Your task to perform on an android device: turn off javascript in the chrome app Image 0: 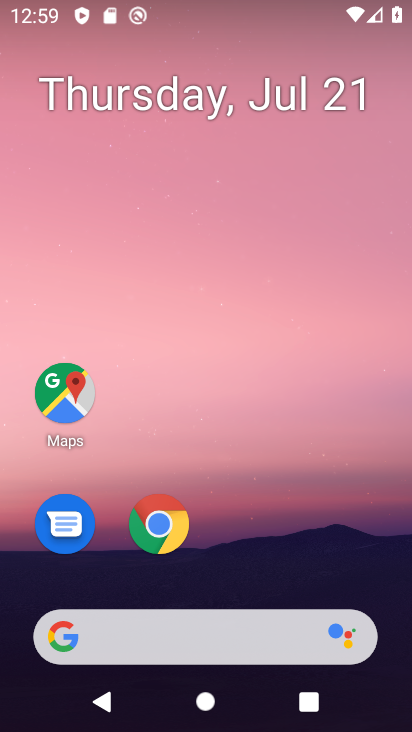
Step 0: drag from (260, 522) to (282, 248)
Your task to perform on an android device: turn off javascript in the chrome app Image 1: 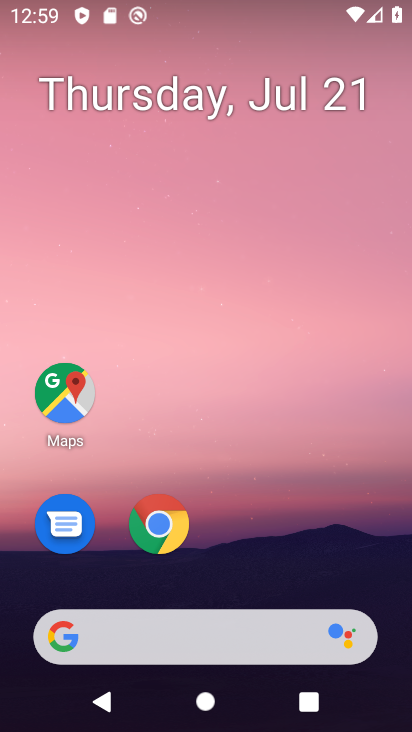
Step 1: click (172, 519)
Your task to perform on an android device: turn off javascript in the chrome app Image 2: 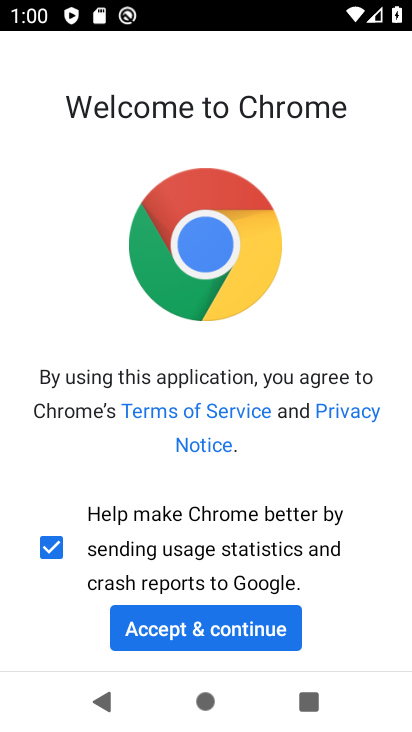
Step 2: click (292, 639)
Your task to perform on an android device: turn off javascript in the chrome app Image 3: 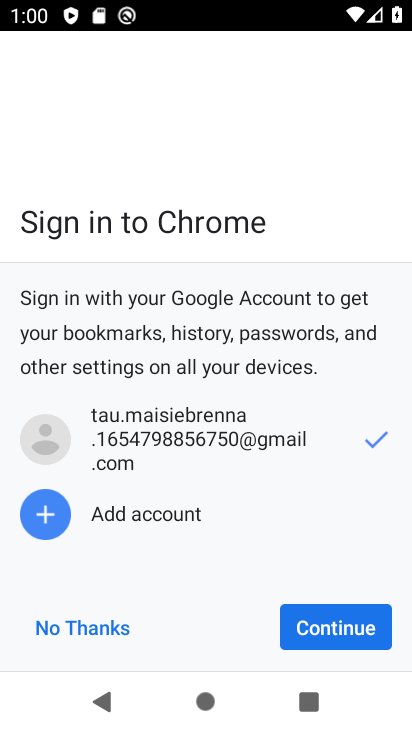
Step 3: click (304, 626)
Your task to perform on an android device: turn off javascript in the chrome app Image 4: 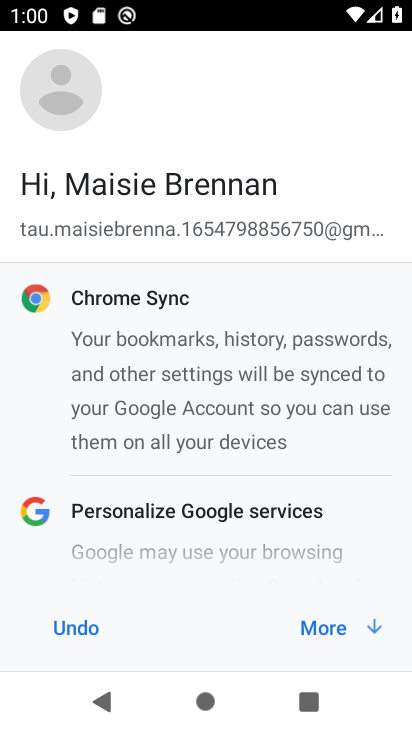
Step 4: click (308, 627)
Your task to perform on an android device: turn off javascript in the chrome app Image 5: 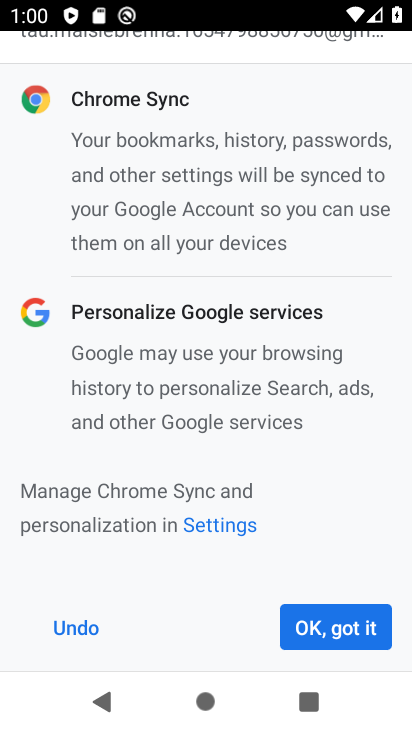
Step 5: click (311, 624)
Your task to perform on an android device: turn off javascript in the chrome app Image 6: 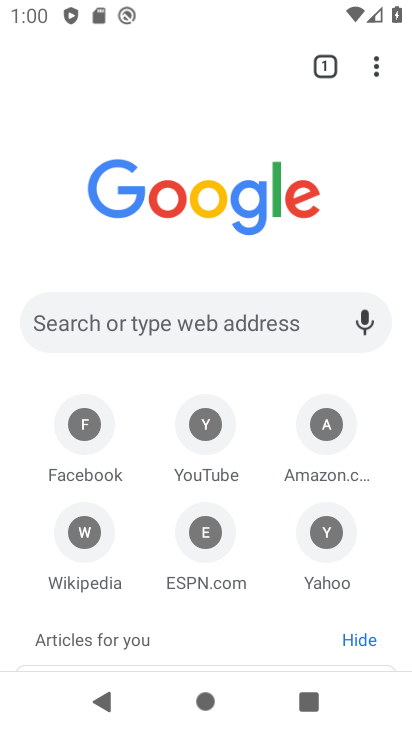
Step 6: click (375, 64)
Your task to perform on an android device: turn off javascript in the chrome app Image 7: 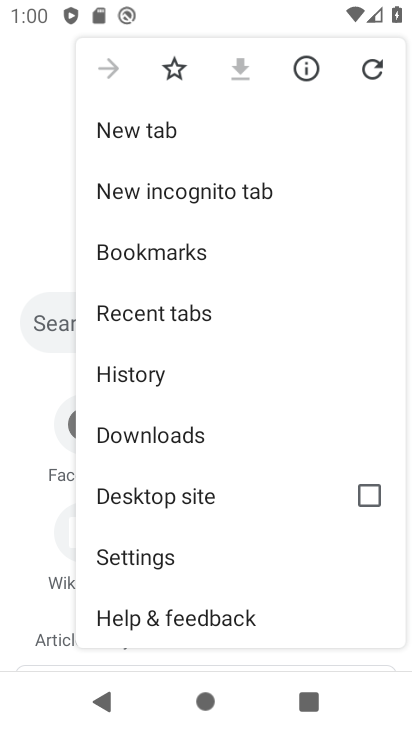
Step 7: click (375, 64)
Your task to perform on an android device: turn off javascript in the chrome app Image 8: 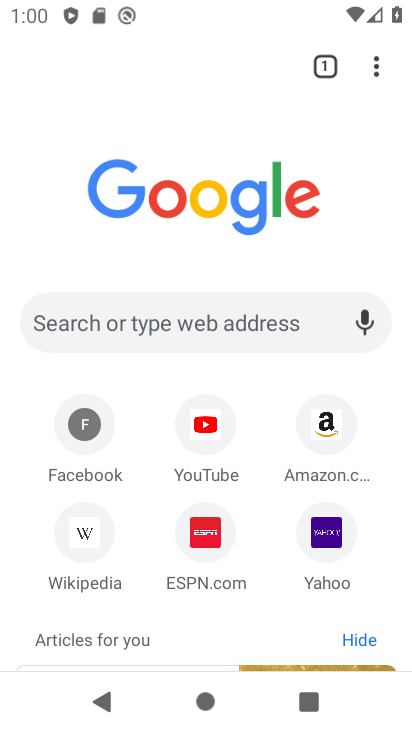
Step 8: click (375, 64)
Your task to perform on an android device: turn off javascript in the chrome app Image 9: 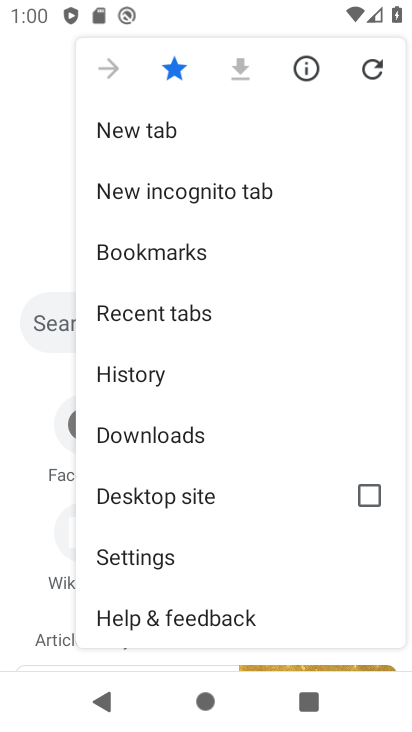
Step 9: click (153, 567)
Your task to perform on an android device: turn off javascript in the chrome app Image 10: 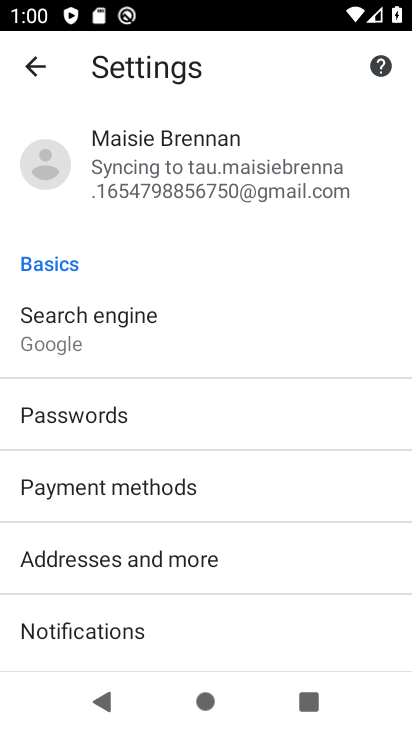
Step 10: drag from (222, 523) to (243, 205)
Your task to perform on an android device: turn off javascript in the chrome app Image 11: 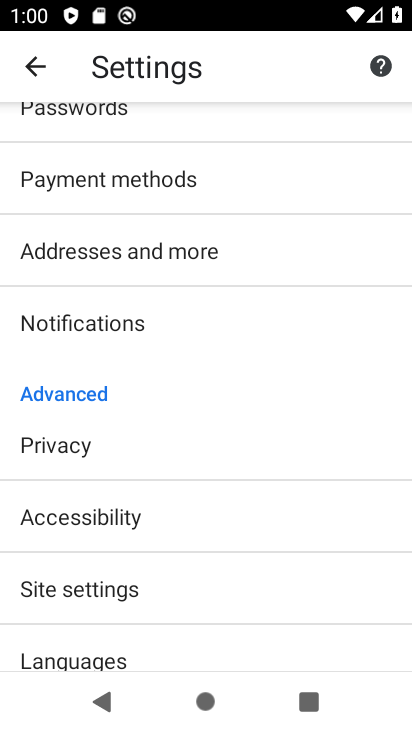
Step 11: click (120, 578)
Your task to perform on an android device: turn off javascript in the chrome app Image 12: 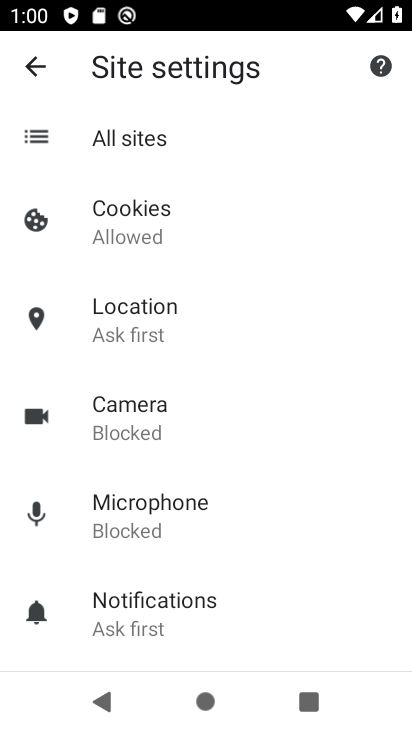
Step 12: drag from (241, 519) to (266, 269)
Your task to perform on an android device: turn off javascript in the chrome app Image 13: 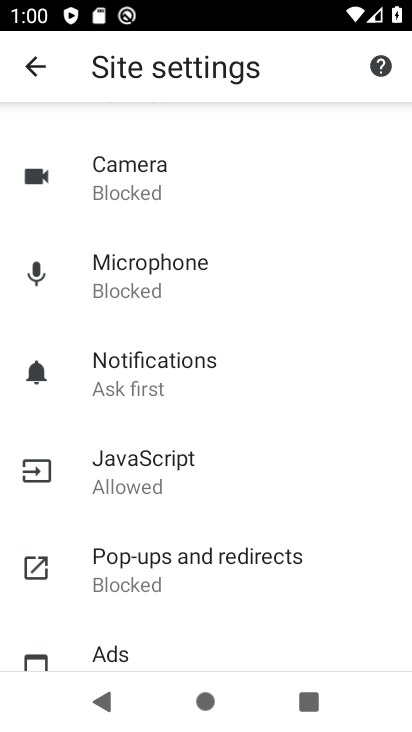
Step 13: click (200, 465)
Your task to perform on an android device: turn off javascript in the chrome app Image 14: 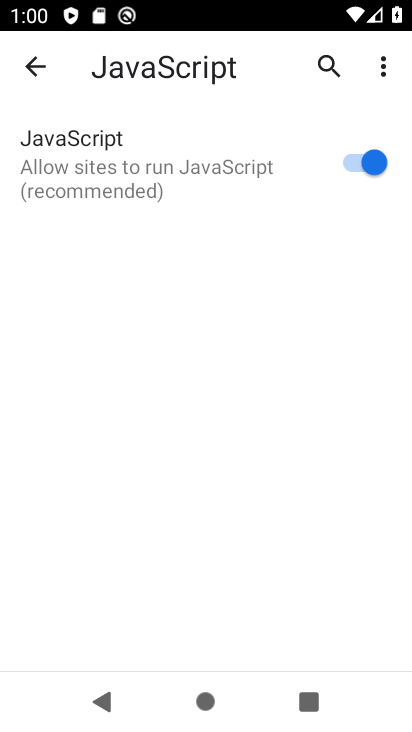
Step 14: click (359, 167)
Your task to perform on an android device: turn off javascript in the chrome app Image 15: 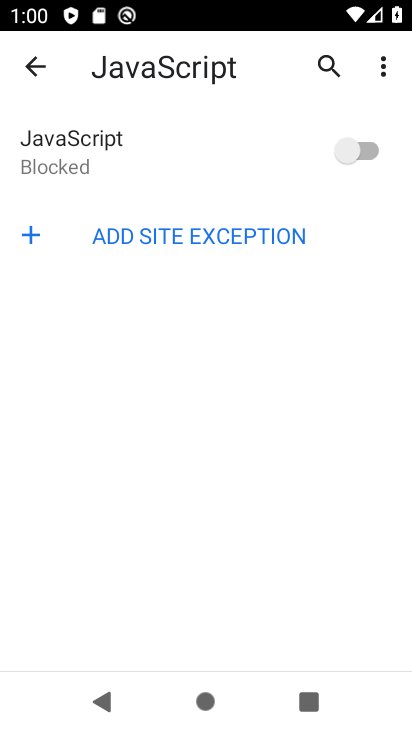
Step 15: task complete